Your task to perform on an android device: turn off notifications settings in the gmail app Image 0: 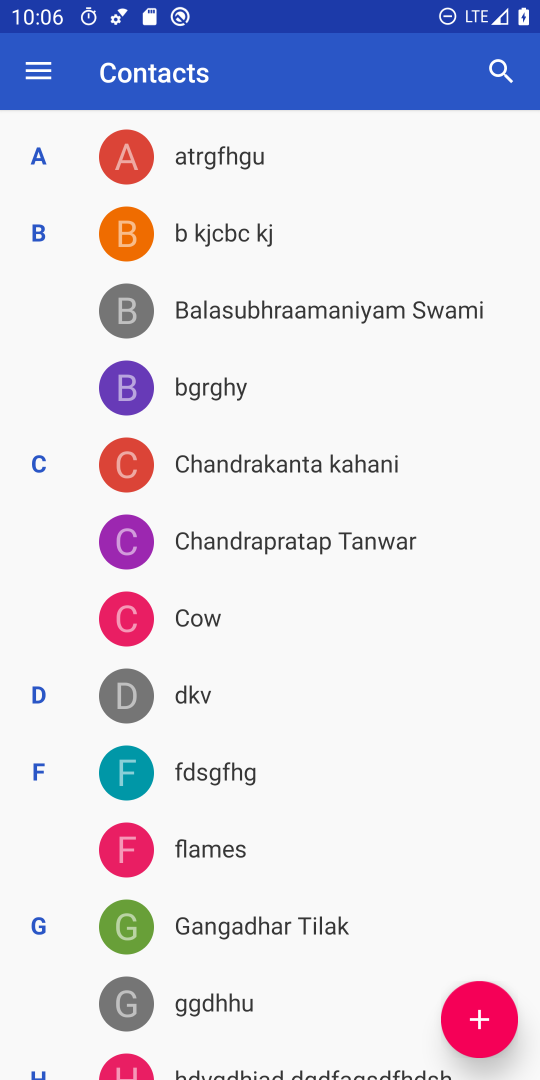
Step 0: press home button
Your task to perform on an android device: turn off notifications settings in the gmail app Image 1: 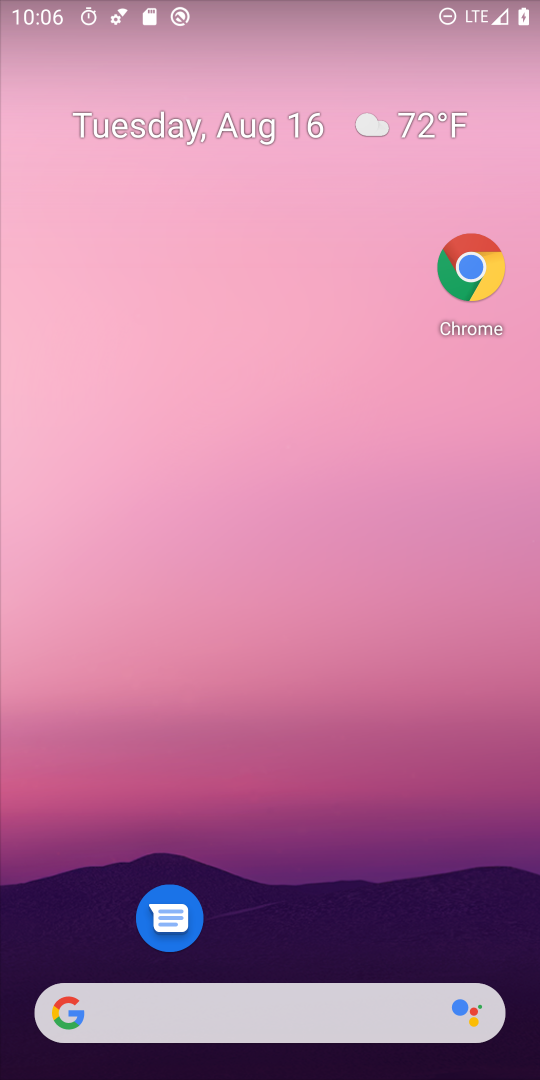
Step 1: drag from (286, 751) to (326, 218)
Your task to perform on an android device: turn off notifications settings in the gmail app Image 2: 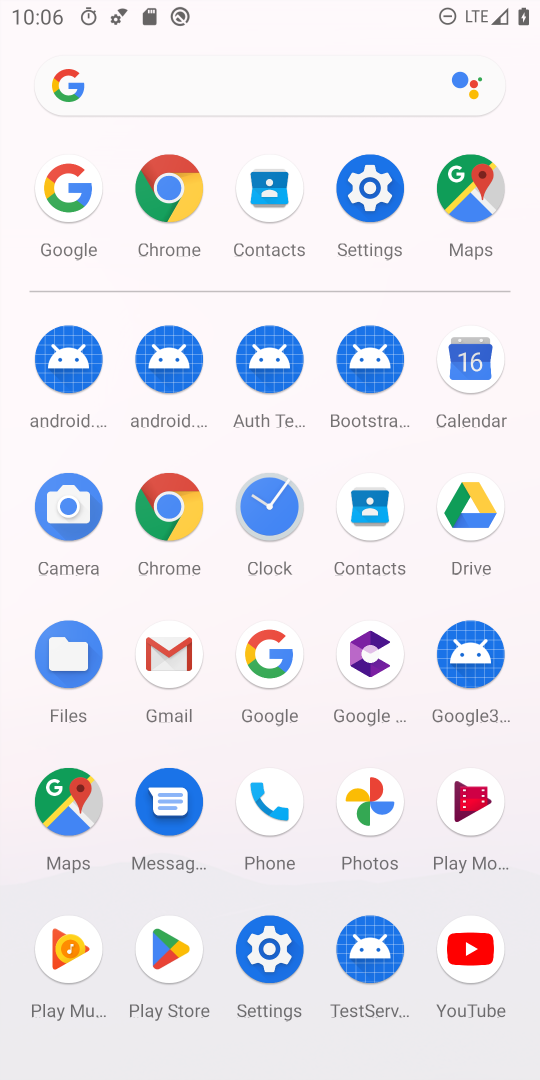
Step 2: click (182, 652)
Your task to perform on an android device: turn off notifications settings in the gmail app Image 3: 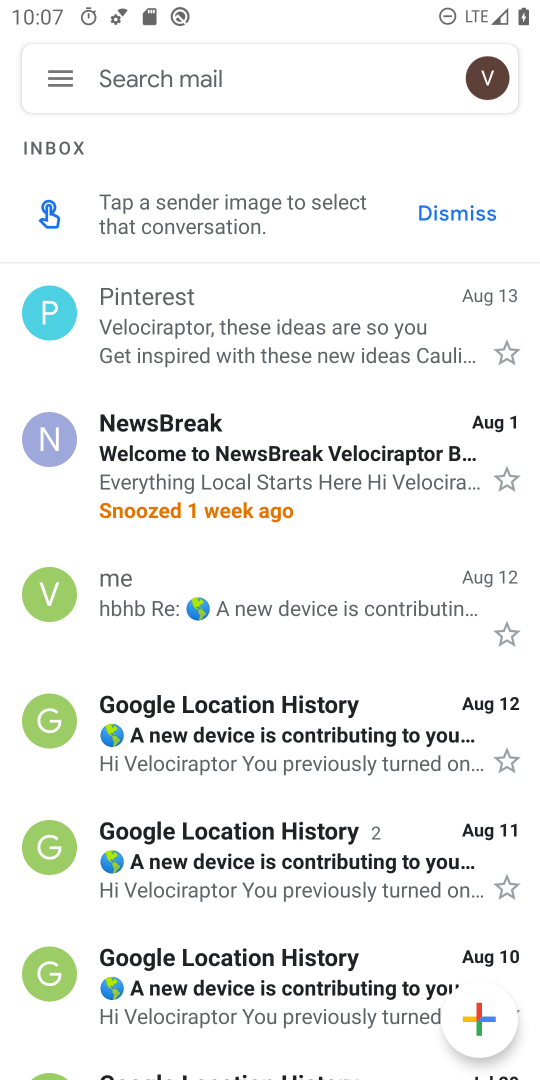
Step 3: click (60, 88)
Your task to perform on an android device: turn off notifications settings in the gmail app Image 4: 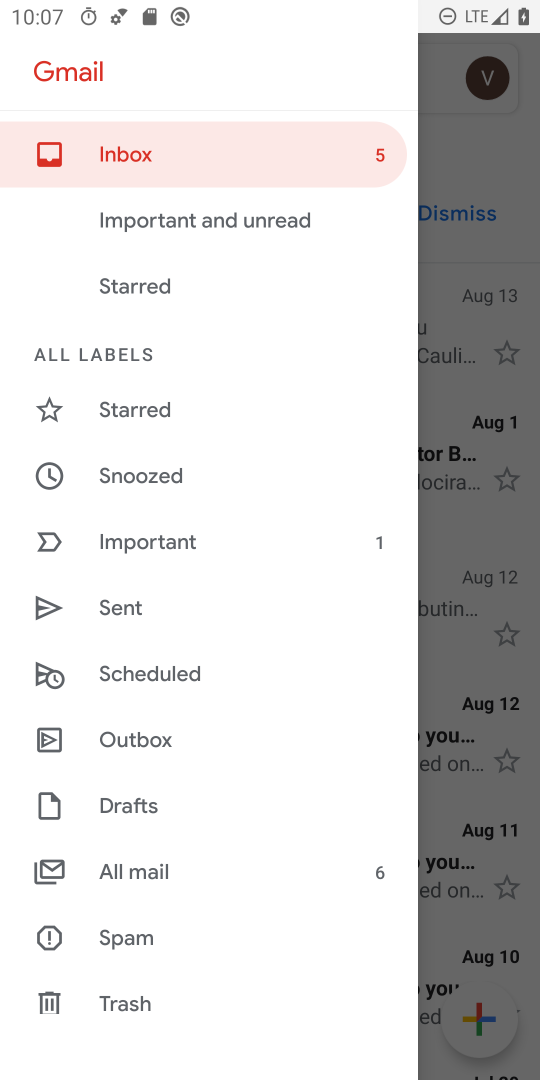
Step 4: drag from (179, 720) to (249, 234)
Your task to perform on an android device: turn off notifications settings in the gmail app Image 5: 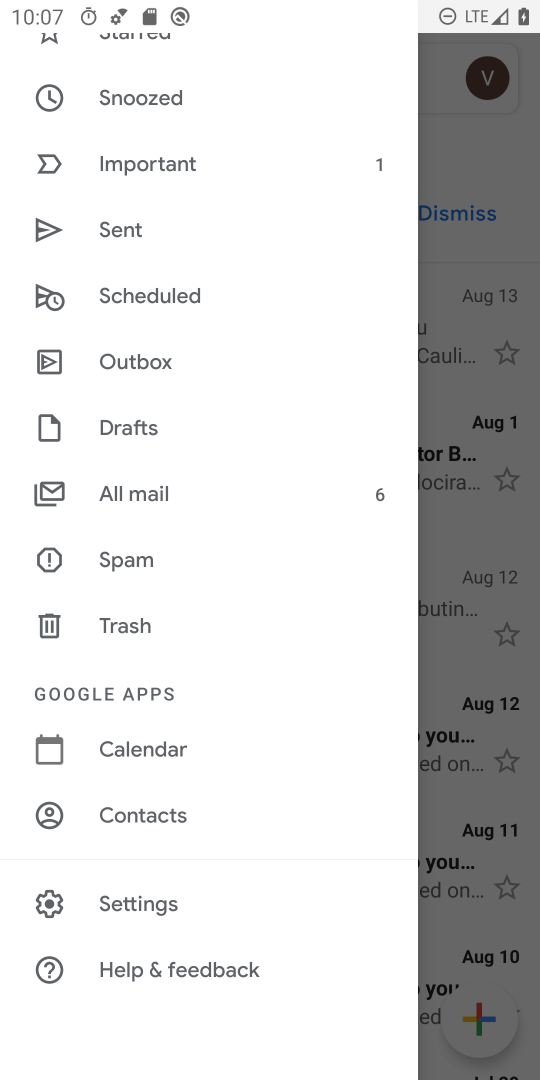
Step 5: click (121, 906)
Your task to perform on an android device: turn off notifications settings in the gmail app Image 6: 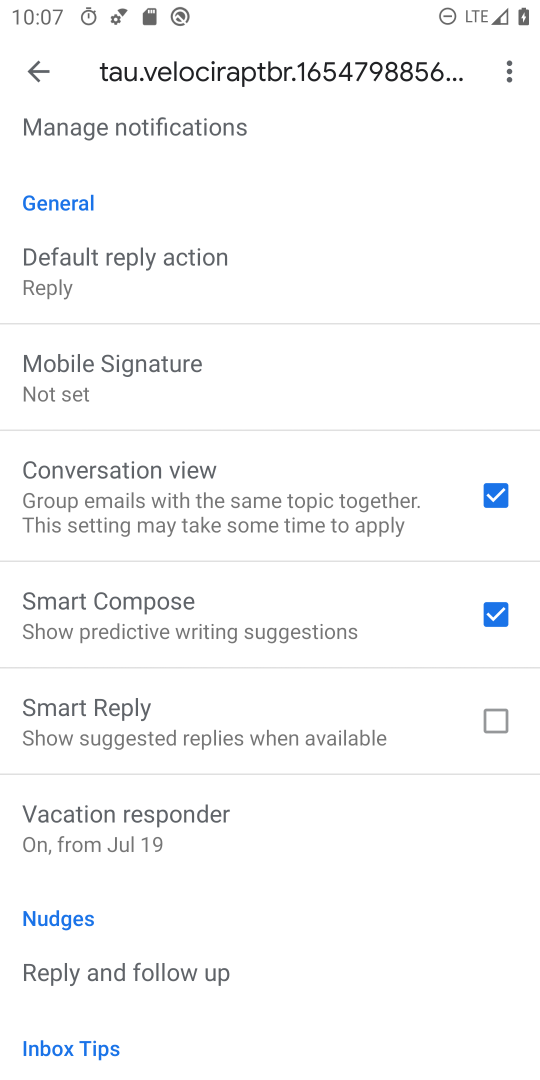
Step 6: click (41, 82)
Your task to perform on an android device: turn off notifications settings in the gmail app Image 7: 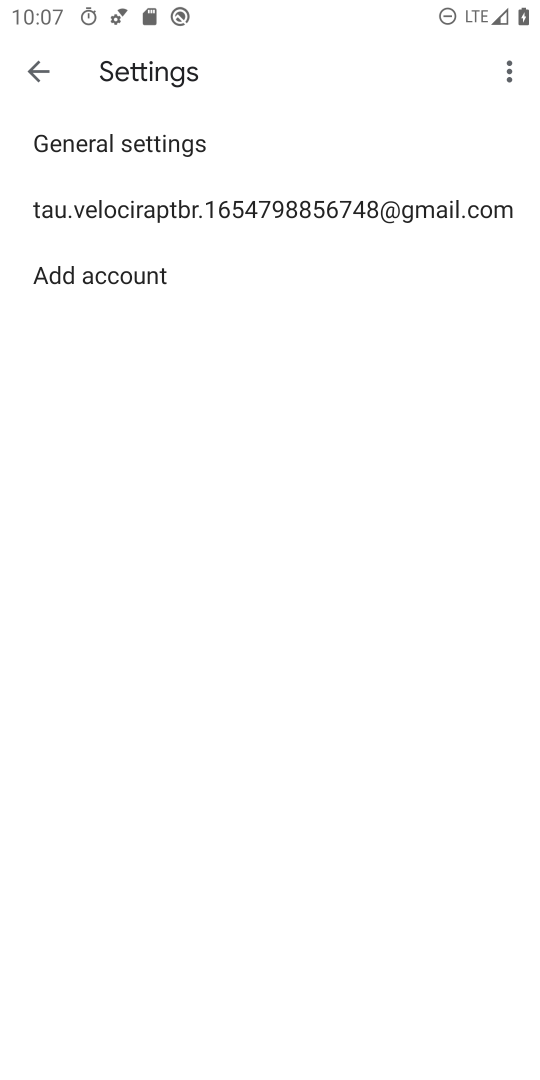
Step 7: click (182, 135)
Your task to perform on an android device: turn off notifications settings in the gmail app Image 8: 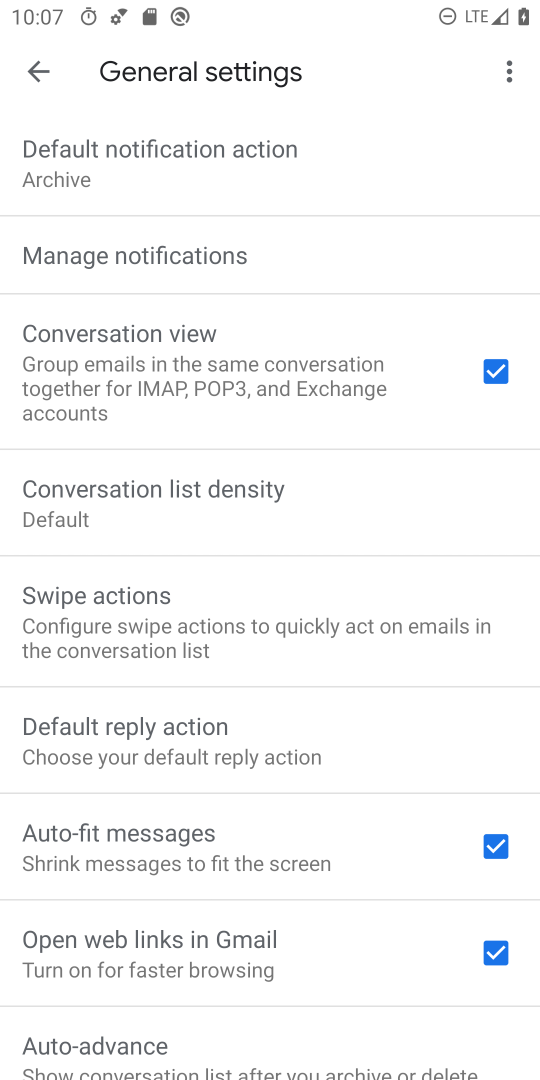
Step 8: click (185, 261)
Your task to perform on an android device: turn off notifications settings in the gmail app Image 9: 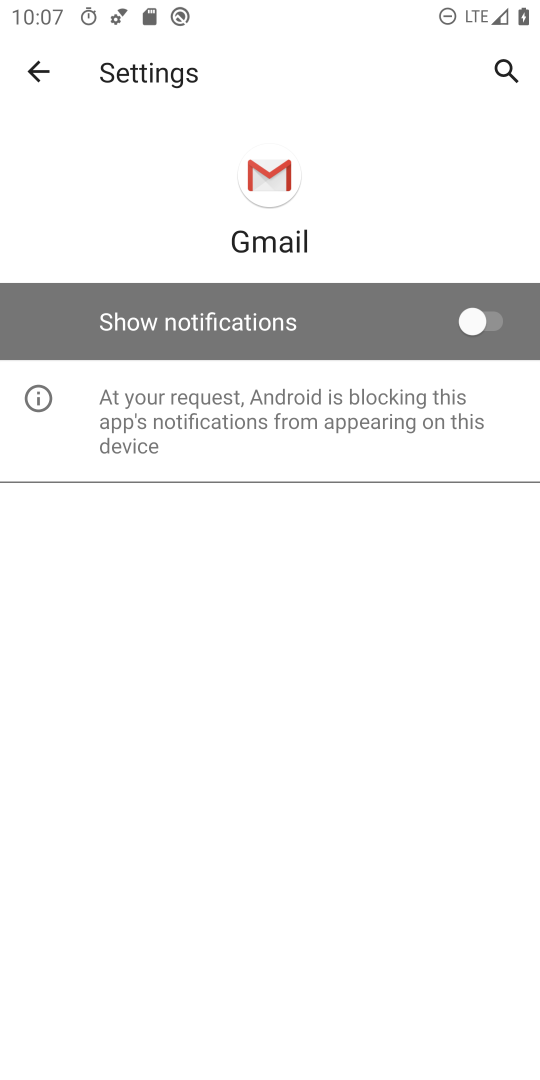
Step 9: task complete